Your task to perform on an android device: Is it going to rain this weekend? Image 0: 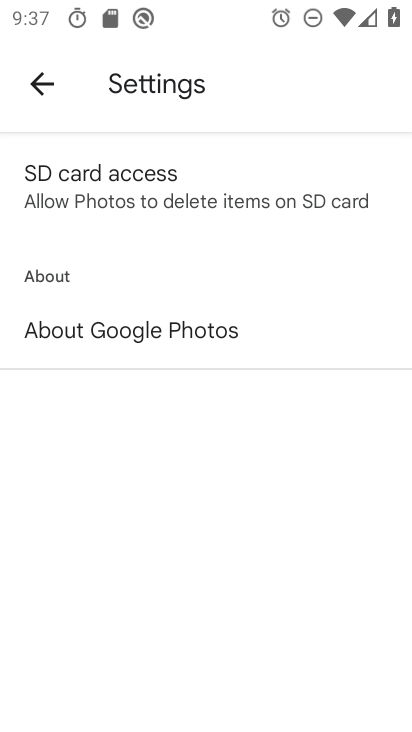
Step 0: press home button
Your task to perform on an android device: Is it going to rain this weekend? Image 1: 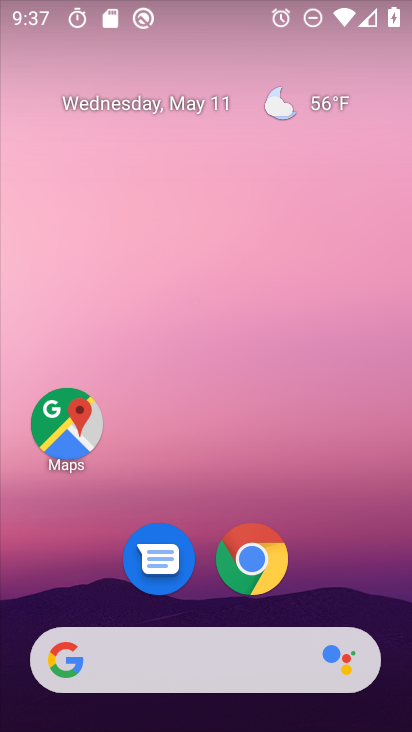
Step 1: click (212, 623)
Your task to perform on an android device: Is it going to rain this weekend? Image 2: 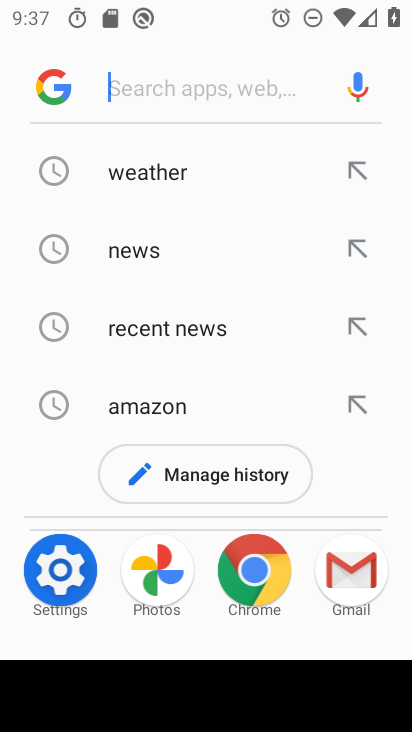
Step 2: click (190, 178)
Your task to perform on an android device: Is it going to rain this weekend? Image 3: 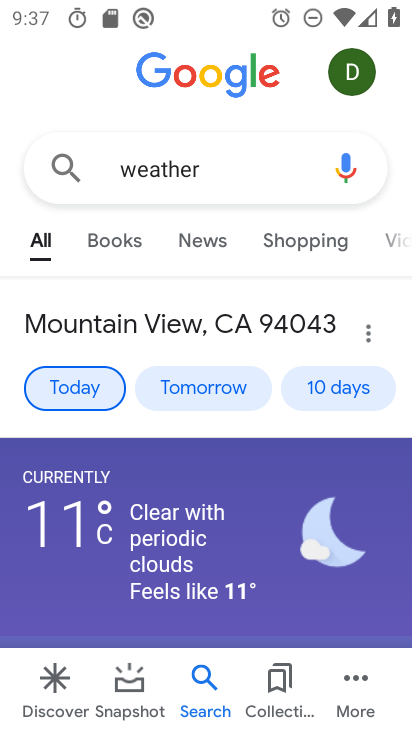
Step 3: click (321, 387)
Your task to perform on an android device: Is it going to rain this weekend? Image 4: 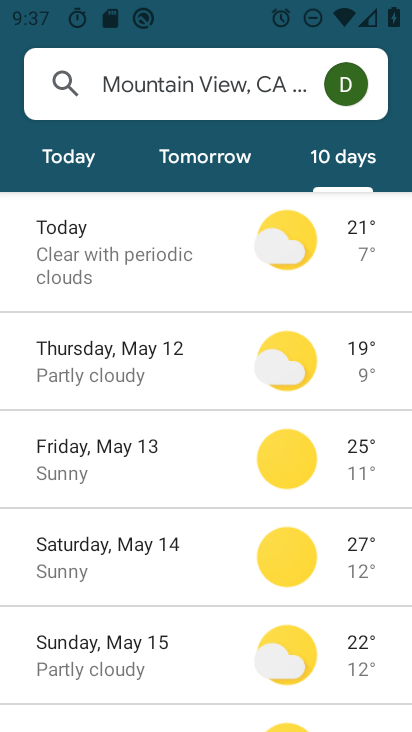
Step 4: task complete